Your task to perform on an android device: Go to Yahoo.com Image 0: 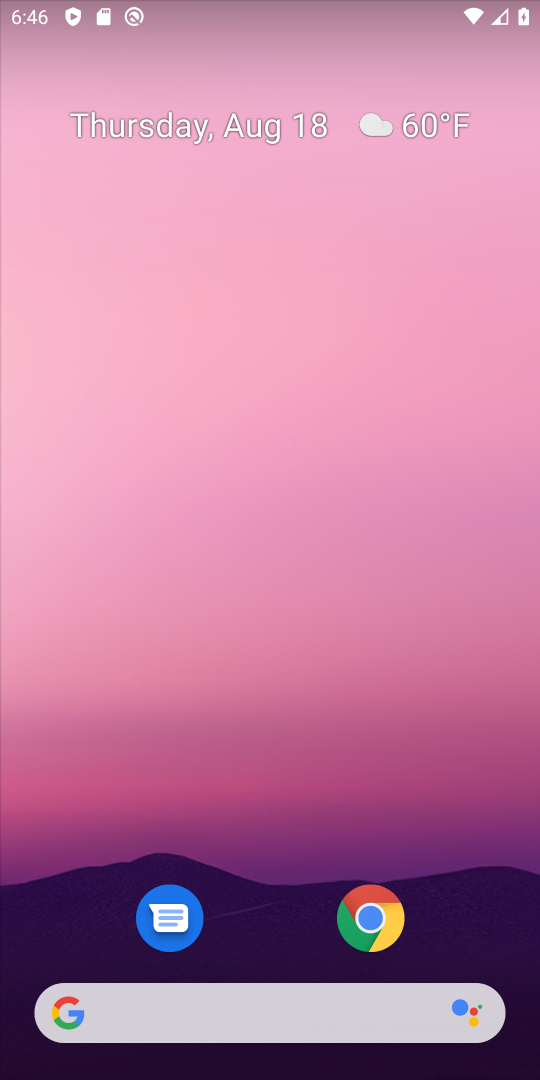
Step 0: press home button
Your task to perform on an android device: Go to Yahoo.com Image 1: 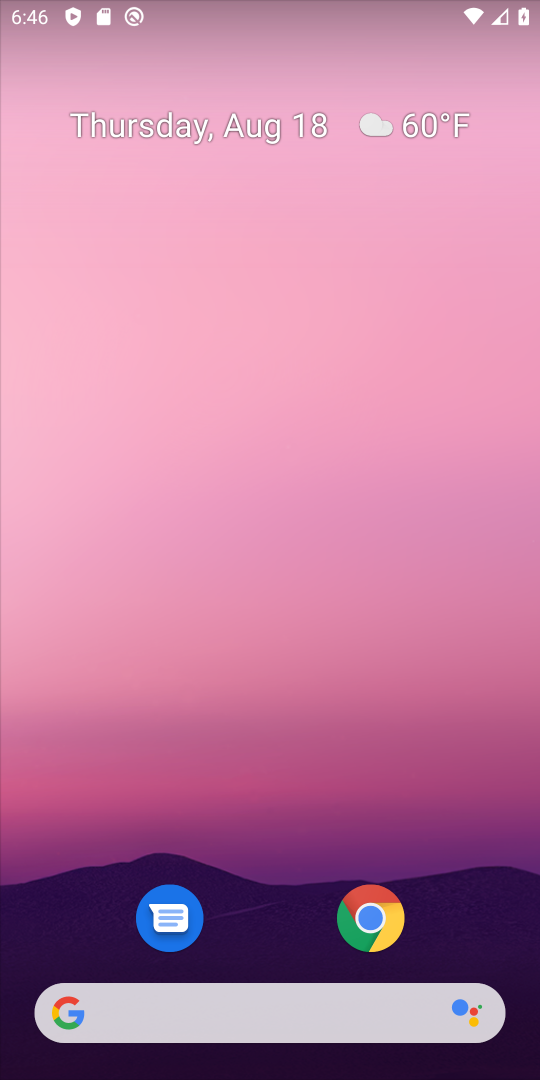
Step 1: click (64, 1018)
Your task to perform on an android device: Go to Yahoo.com Image 2: 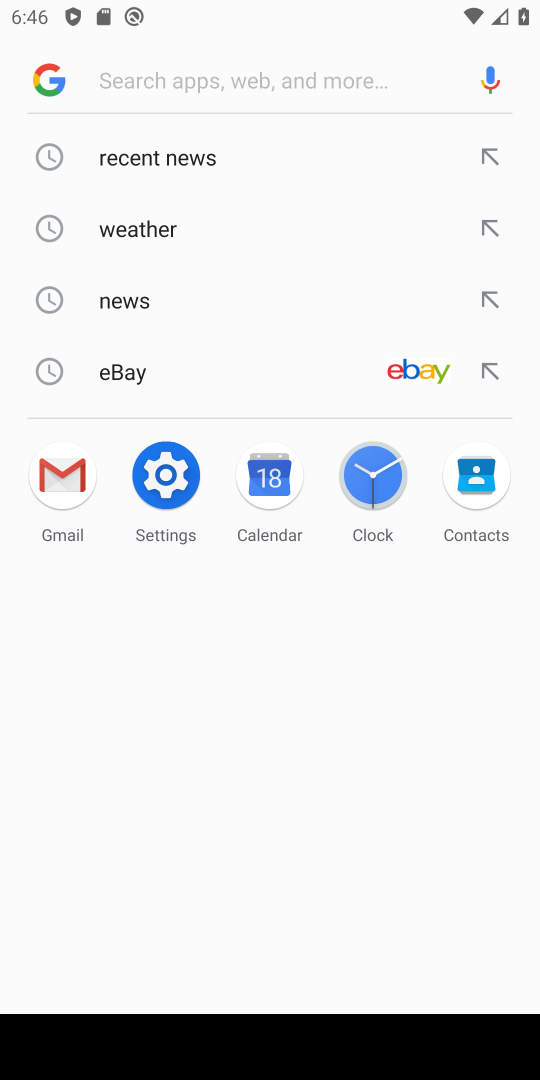
Step 2: type "Yahoo.com"
Your task to perform on an android device: Go to Yahoo.com Image 3: 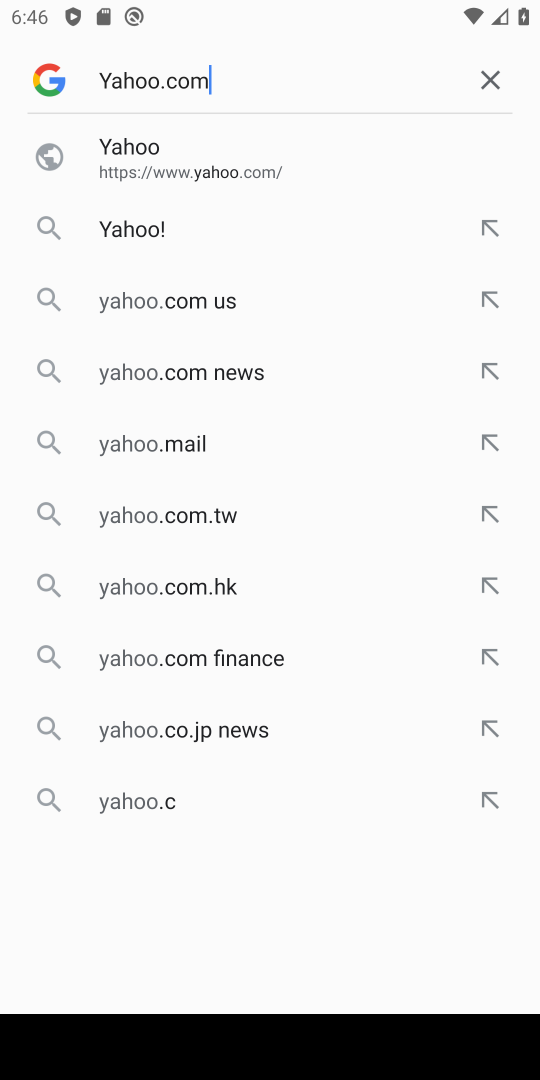
Step 3: press enter
Your task to perform on an android device: Go to Yahoo.com Image 4: 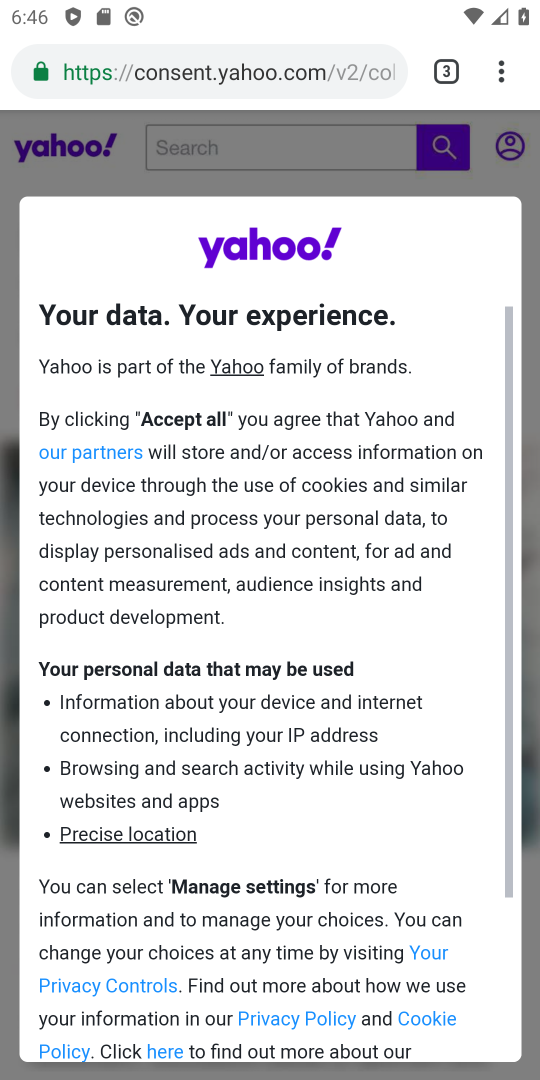
Step 4: drag from (472, 986) to (461, 211)
Your task to perform on an android device: Go to Yahoo.com Image 5: 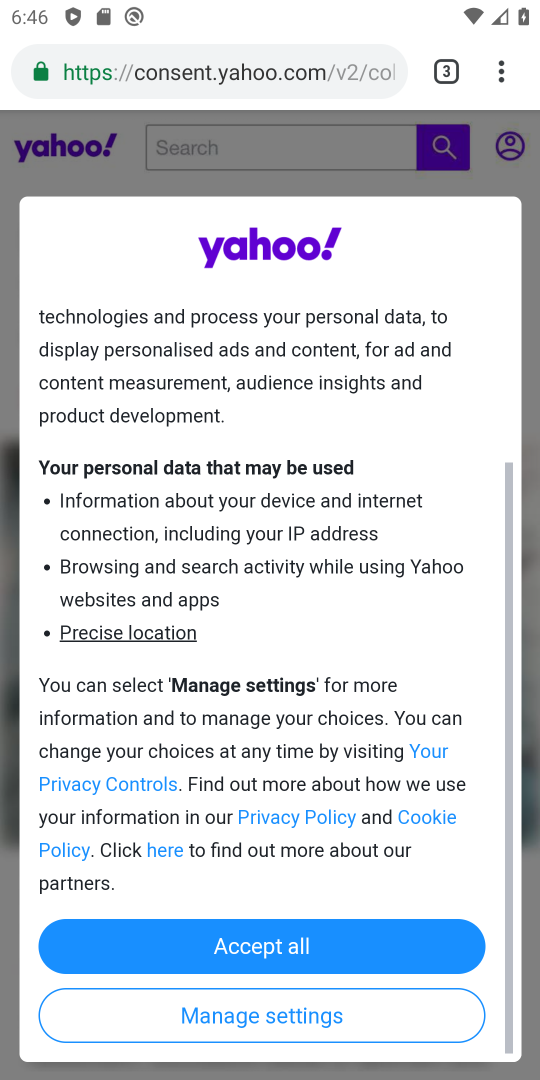
Step 5: click (215, 938)
Your task to perform on an android device: Go to Yahoo.com Image 6: 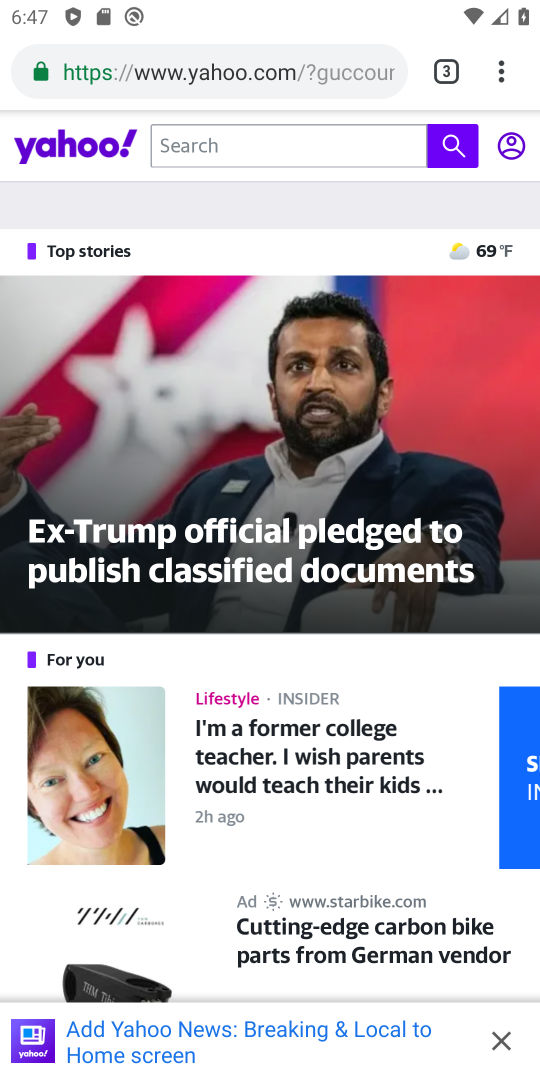
Step 6: task complete